Your task to perform on an android device: search for starred emails in the gmail app Image 0: 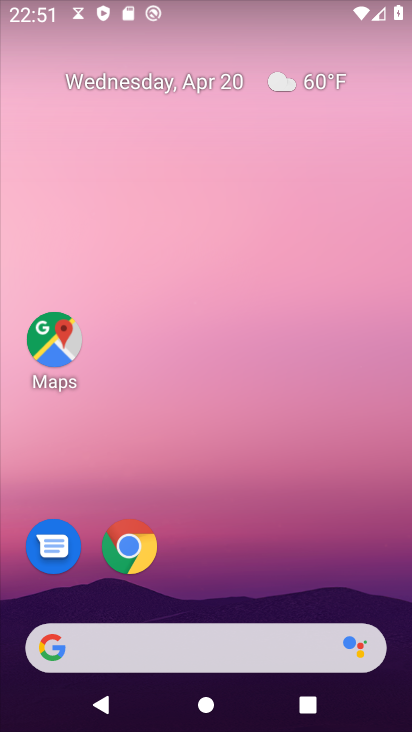
Step 0: drag from (213, 360) to (205, 54)
Your task to perform on an android device: search for starred emails in the gmail app Image 1: 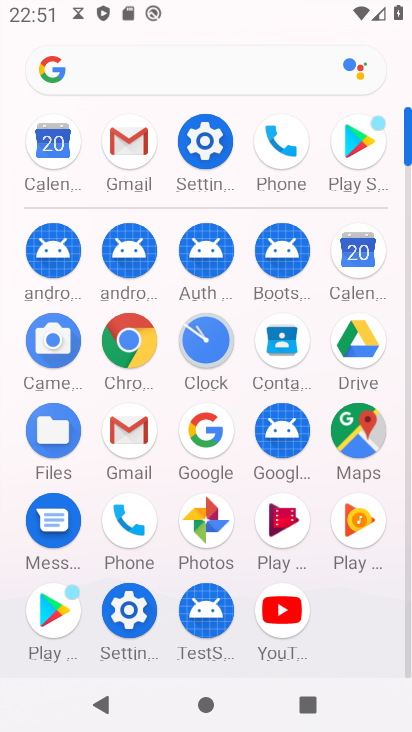
Step 1: click (116, 148)
Your task to perform on an android device: search for starred emails in the gmail app Image 2: 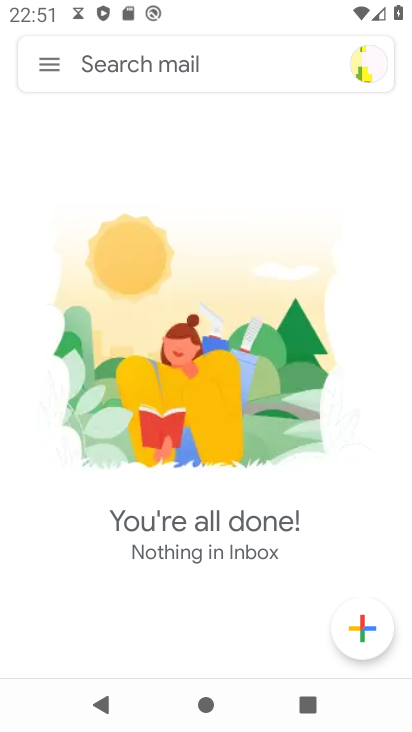
Step 2: click (57, 64)
Your task to perform on an android device: search for starred emails in the gmail app Image 3: 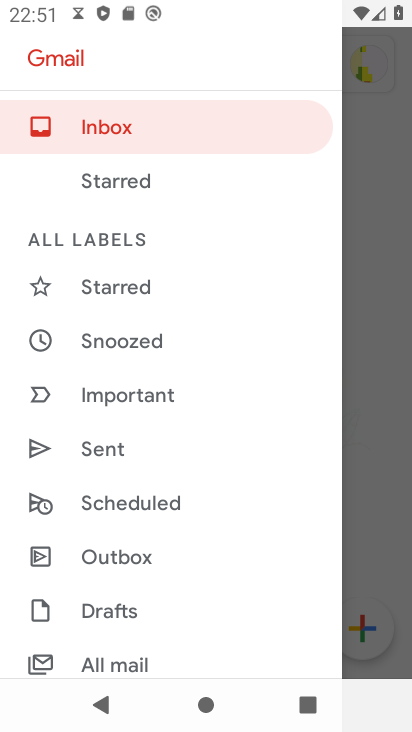
Step 3: click (147, 292)
Your task to perform on an android device: search for starred emails in the gmail app Image 4: 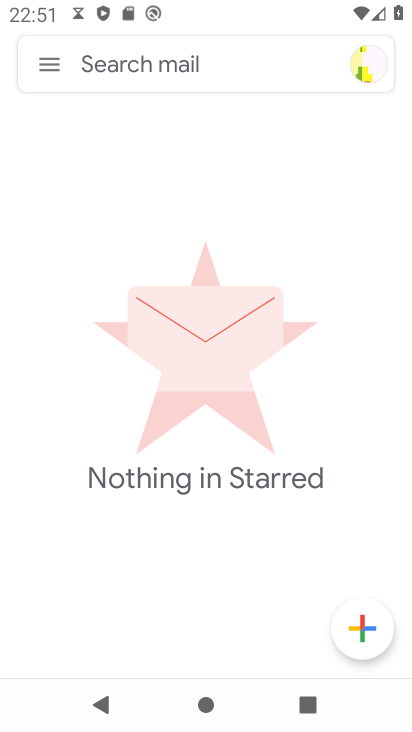
Step 4: task complete